Your task to perform on an android device: Open Google Image 0: 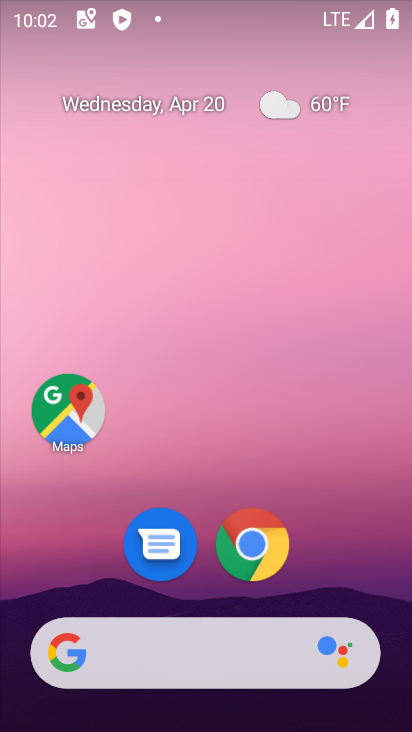
Step 0: drag from (400, 608) to (387, 231)
Your task to perform on an android device: Open Google Image 1: 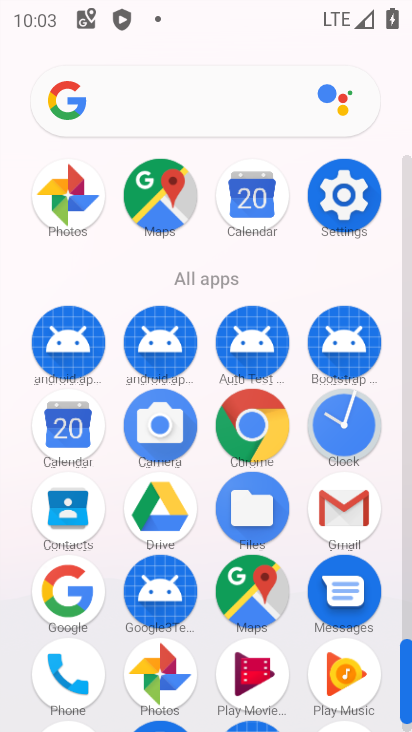
Step 1: click (89, 593)
Your task to perform on an android device: Open Google Image 2: 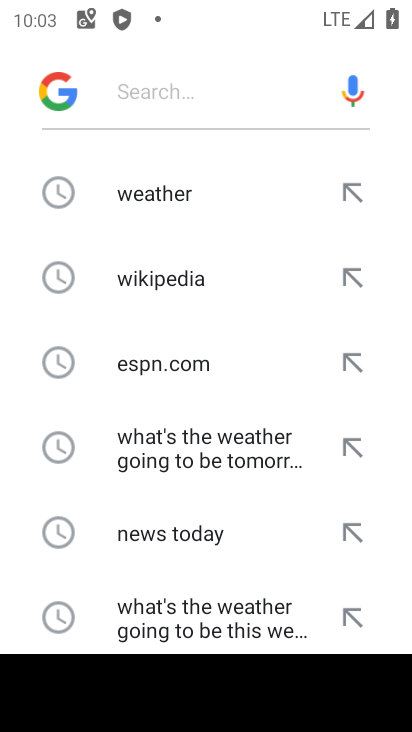
Step 2: press home button
Your task to perform on an android device: Open Google Image 3: 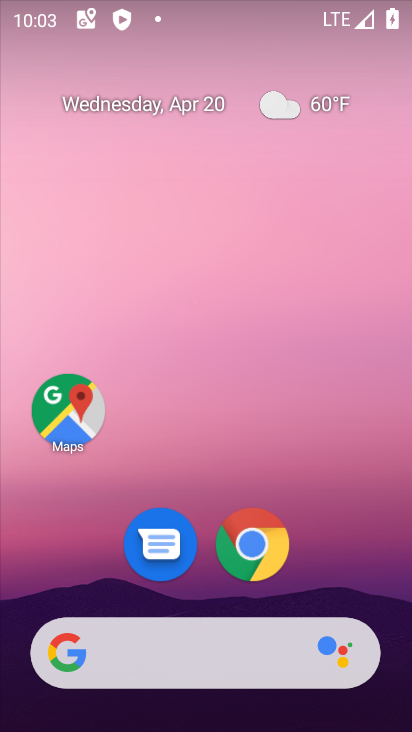
Step 3: drag from (336, 592) to (324, 114)
Your task to perform on an android device: Open Google Image 4: 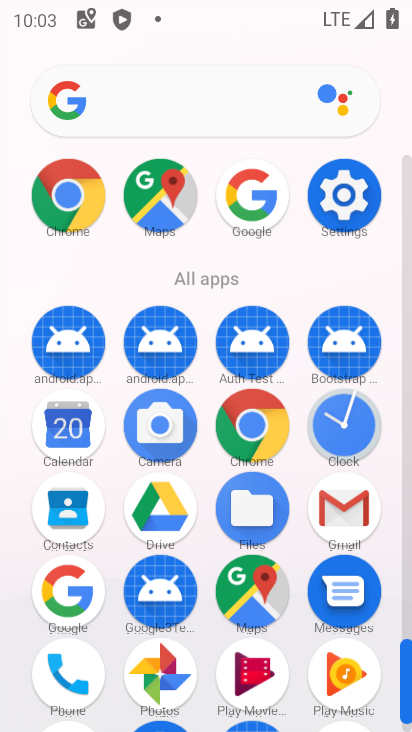
Step 4: click (52, 611)
Your task to perform on an android device: Open Google Image 5: 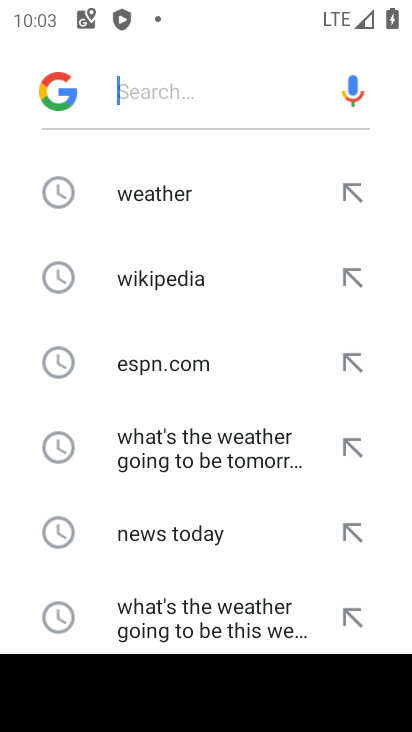
Step 5: task complete